Your task to perform on an android device: Go to CNN.com Image 0: 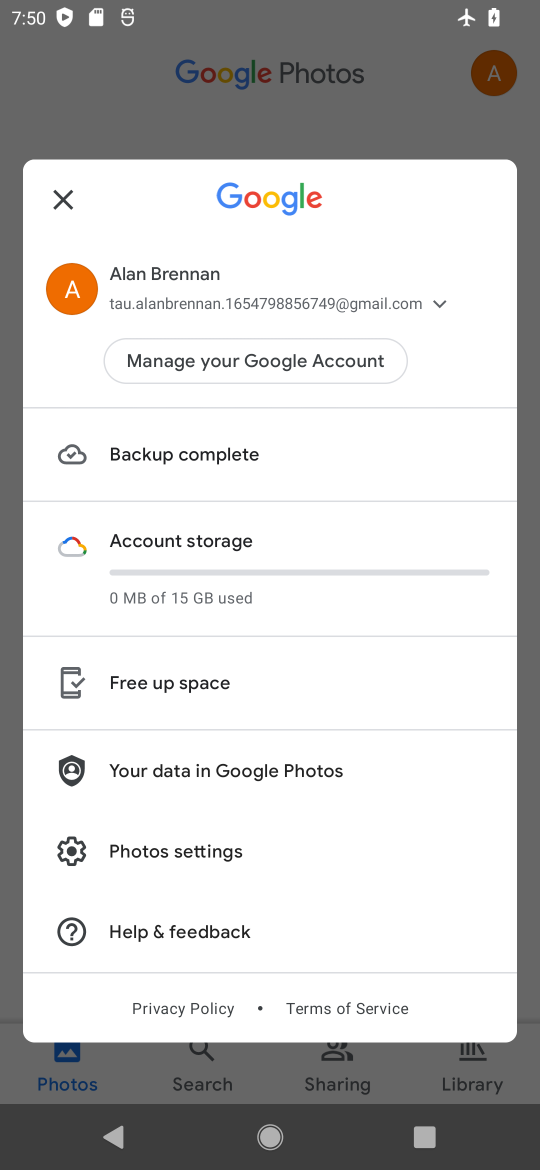
Step 0: click (57, 209)
Your task to perform on an android device: Go to CNN.com Image 1: 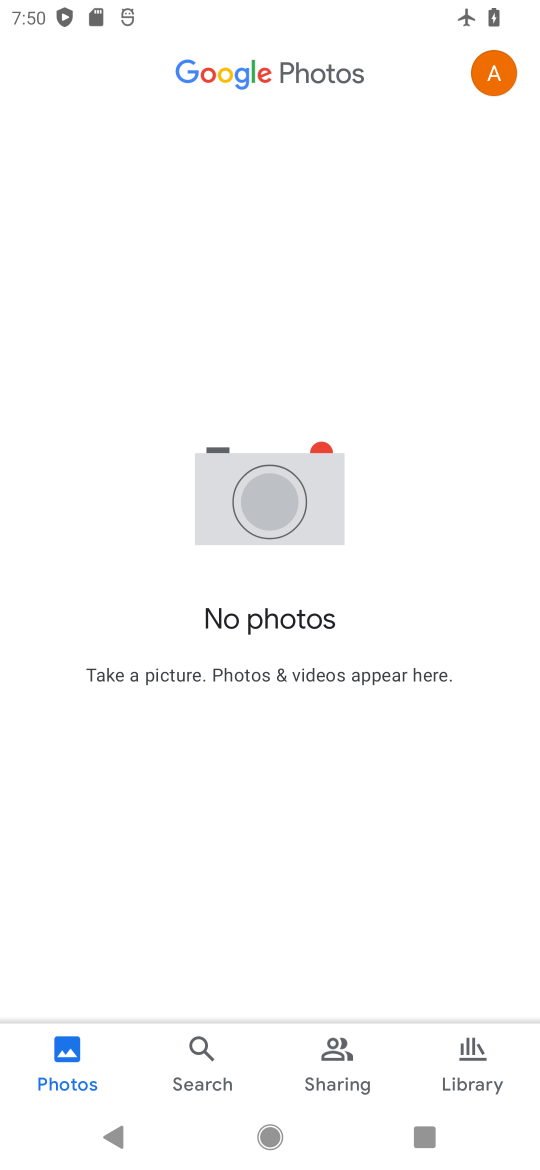
Step 1: press home button
Your task to perform on an android device: Go to CNN.com Image 2: 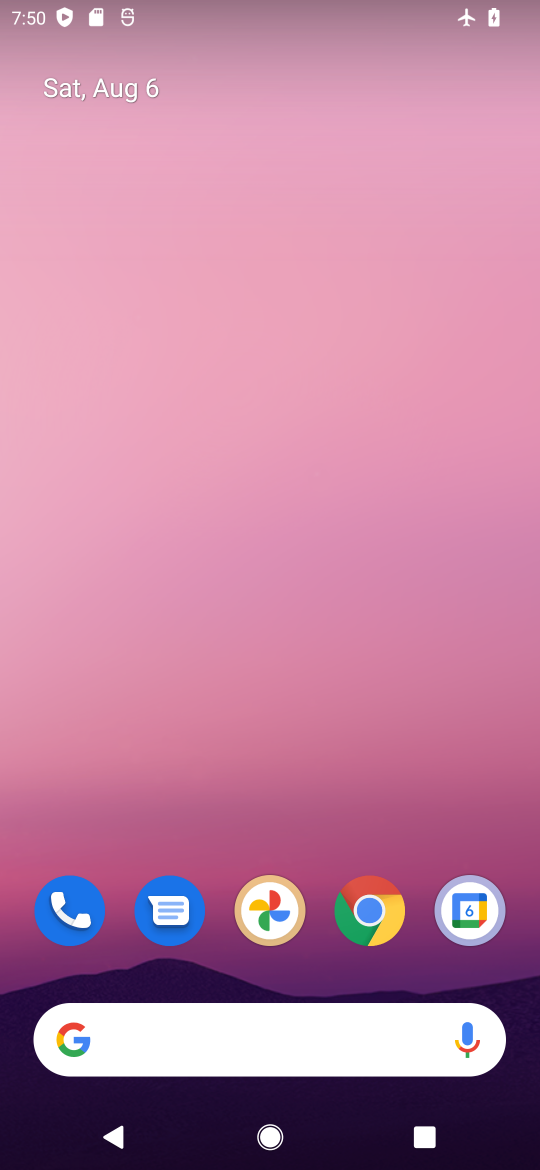
Step 2: click (376, 914)
Your task to perform on an android device: Go to CNN.com Image 3: 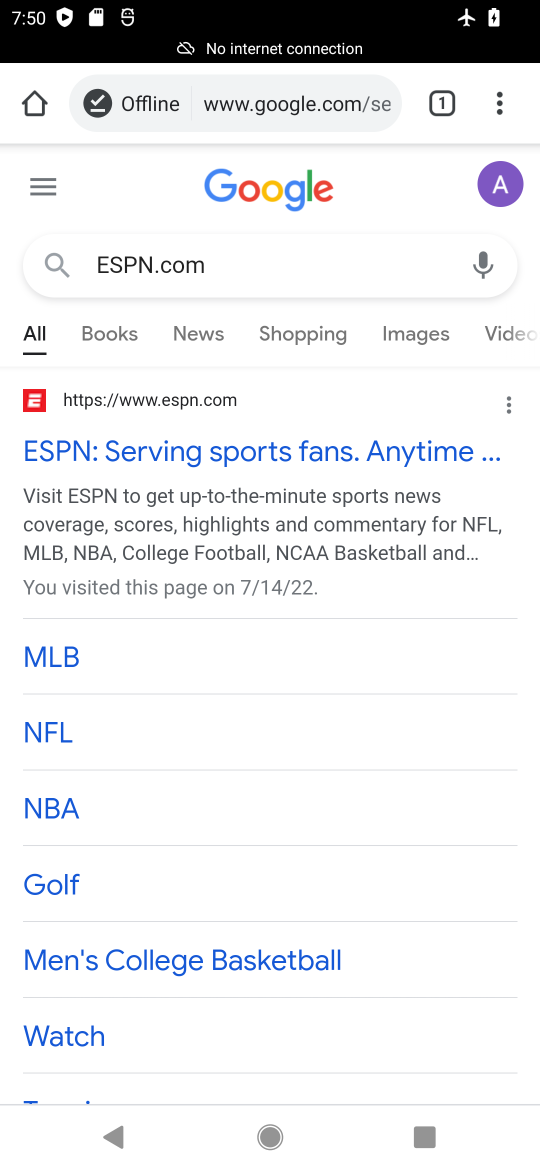
Step 3: click (386, 96)
Your task to perform on an android device: Go to CNN.com Image 4: 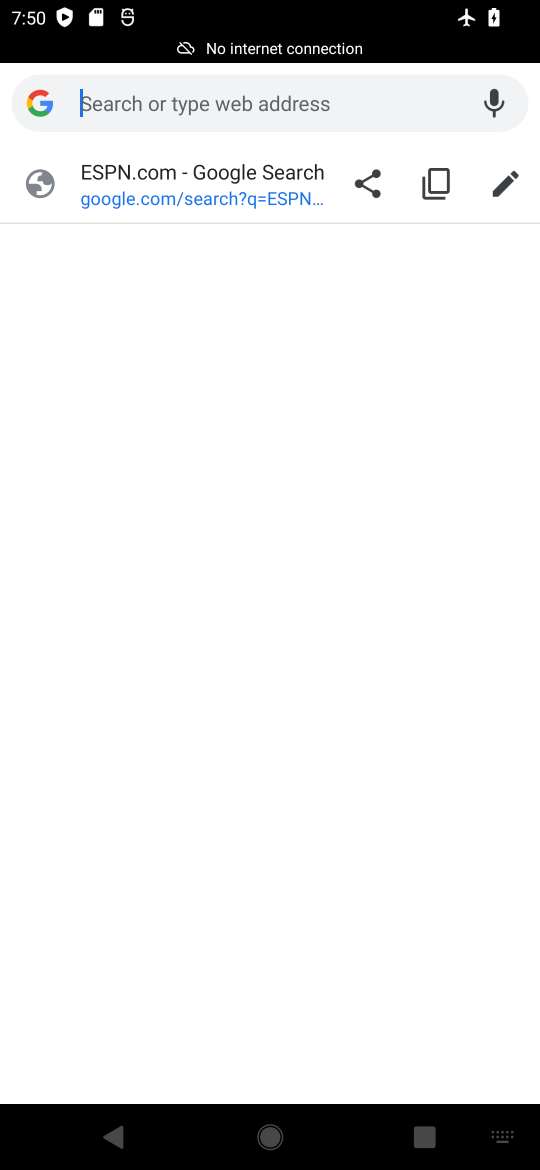
Step 4: type "CNN.com"
Your task to perform on an android device: Go to CNN.com Image 5: 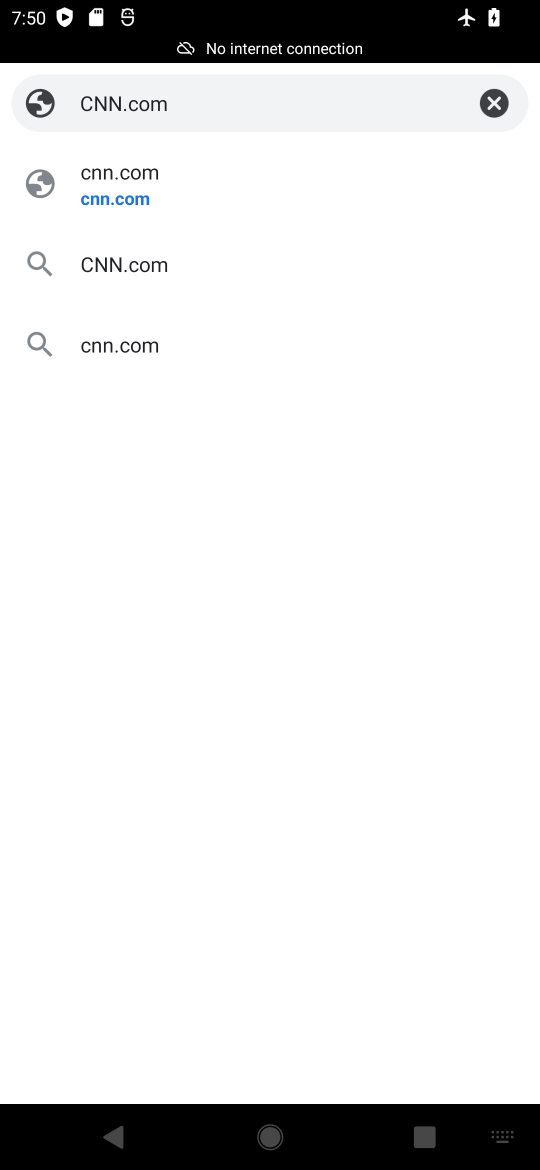
Step 5: click (128, 266)
Your task to perform on an android device: Go to CNN.com Image 6: 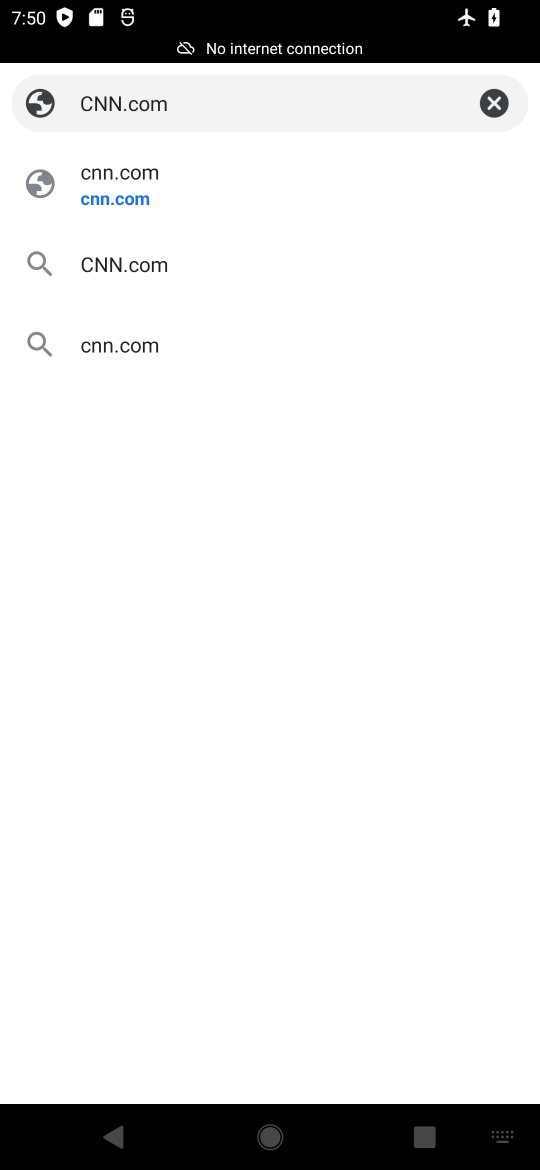
Step 6: click (118, 249)
Your task to perform on an android device: Go to CNN.com Image 7: 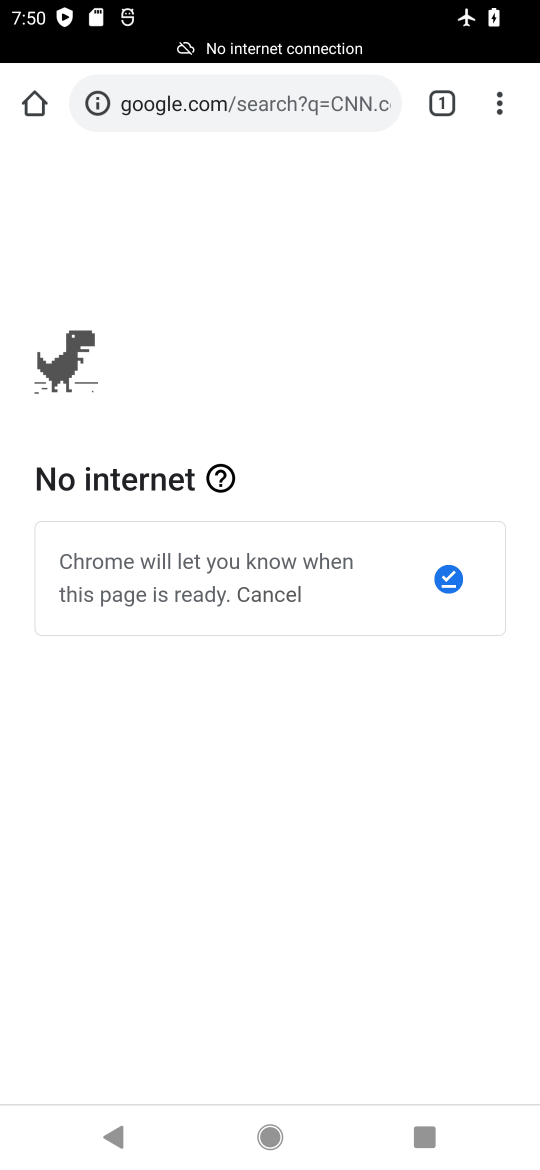
Step 7: task complete